Your task to perform on an android device: turn off location Image 0: 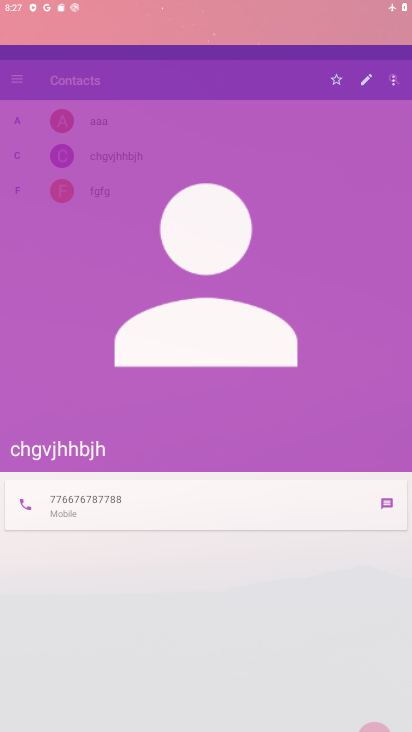
Step 0: click (233, 142)
Your task to perform on an android device: turn off location Image 1: 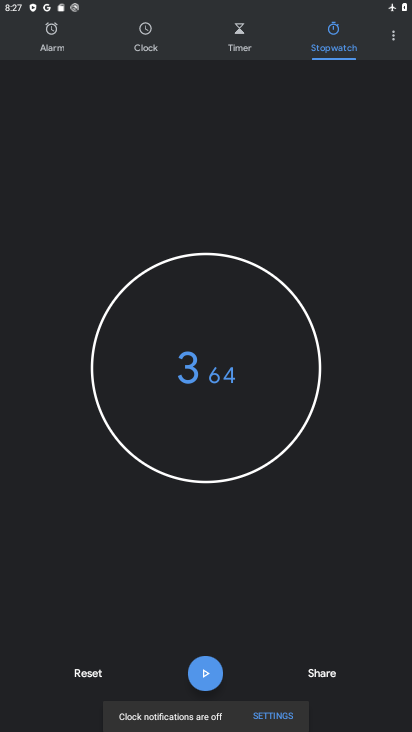
Step 1: press back button
Your task to perform on an android device: turn off location Image 2: 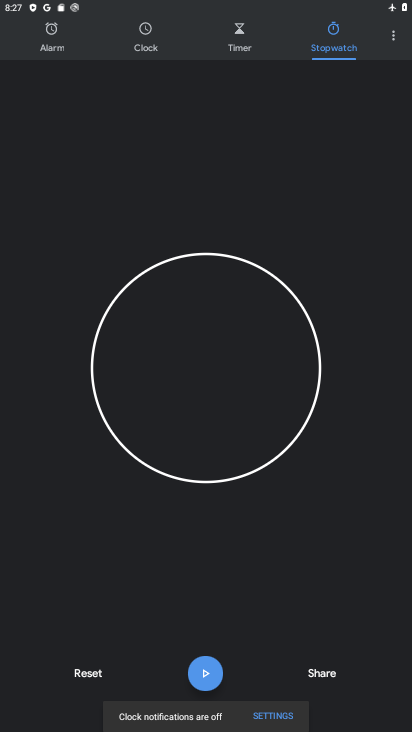
Step 2: press back button
Your task to perform on an android device: turn off location Image 3: 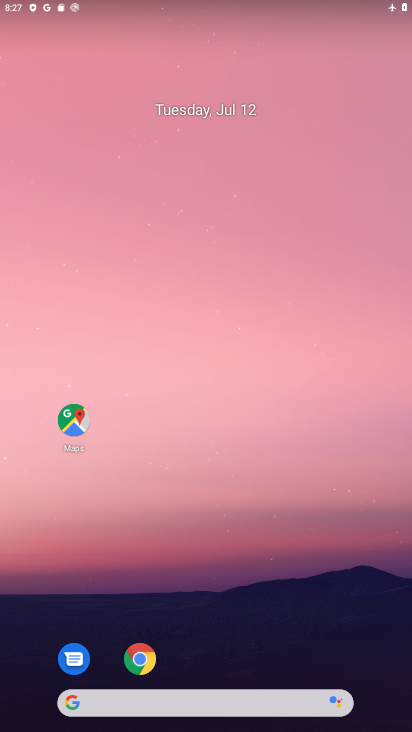
Step 3: drag from (225, 611) to (195, 10)
Your task to perform on an android device: turn off location Image 4: 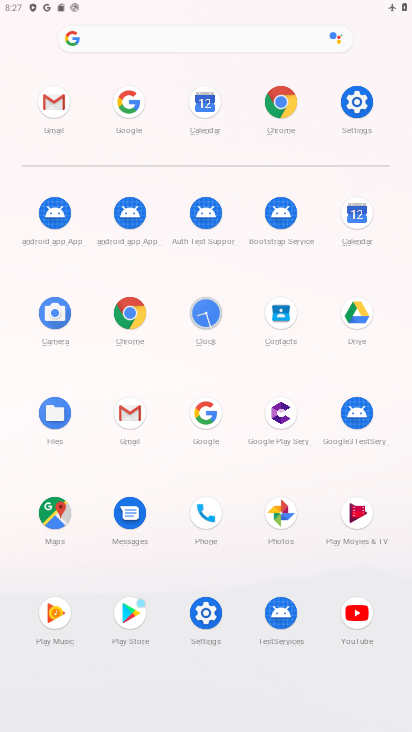
Step 4: click (361, 103)
Your task to perform on an android device: turn off location Image 5: 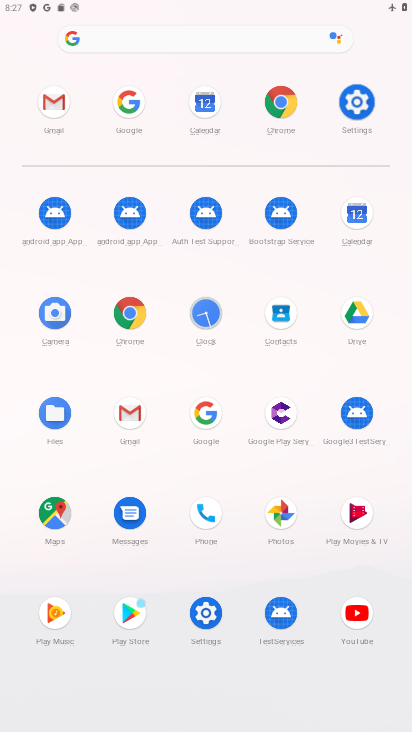
Step 5: click (364, 107)
Your task to perform on an android device: turn off location Image 6: 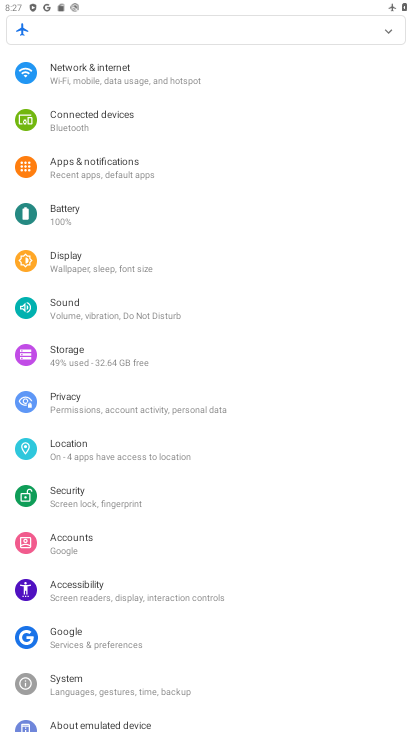
Step 6: click (54, 445)
Your task to perform on an android device: turn off location Image 7: 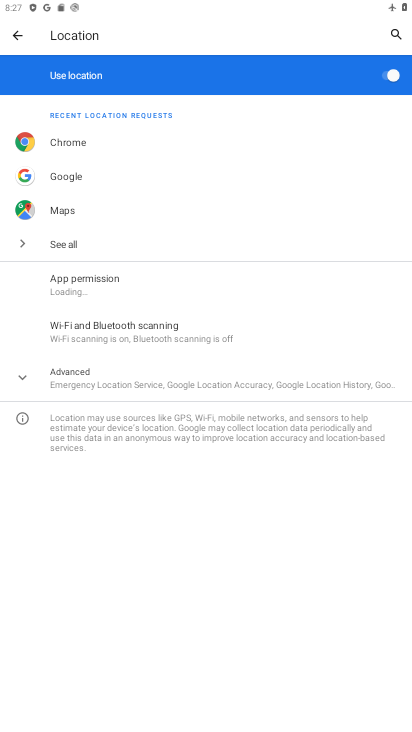
Step 7: click (392, 72)
Your task to perform on an android device: turn off location Image 8: 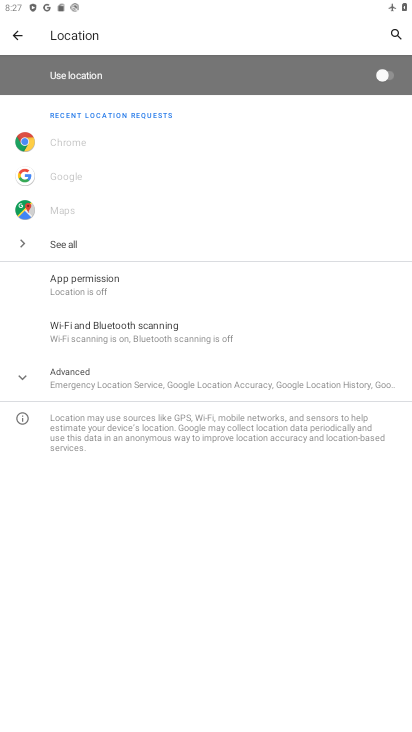
Step 8: task complete